Your task to perform on an android device: change alarm snooze length Image 0: 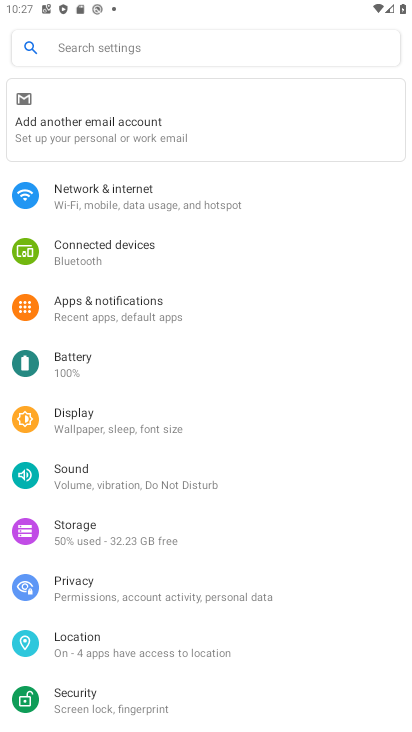
Step 0: press home button
Your task to perform on an android device: change alarm snooze length Image 1: 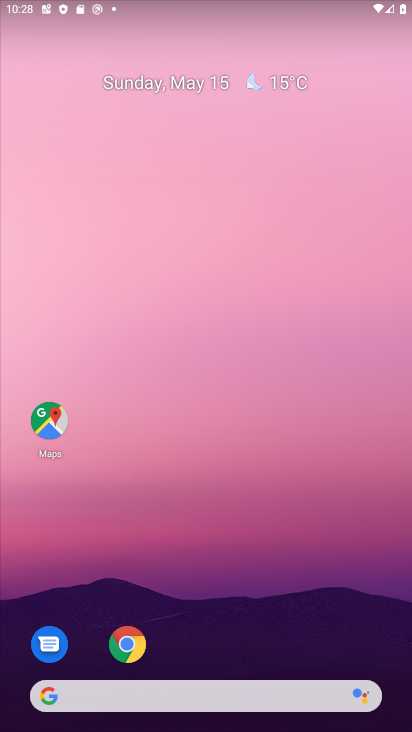
Step 1: drag from (159, 666) to (135, 253)
Your task to perform on an android device: change alarm snooze length Image 2: 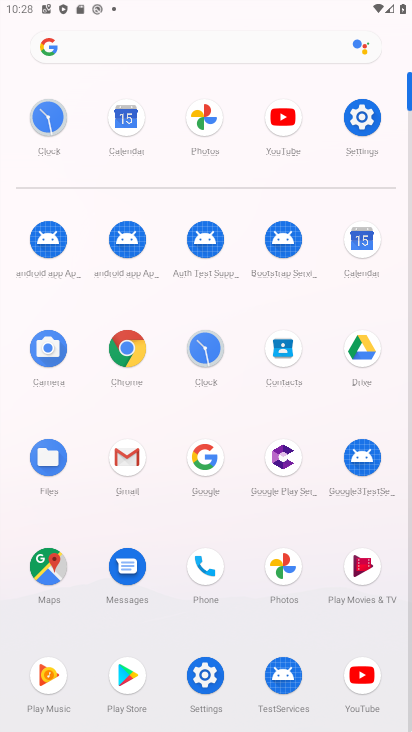
Step 2: click (207, 351)
Your task to perform on an android device: change alarm snooze length Image 3: 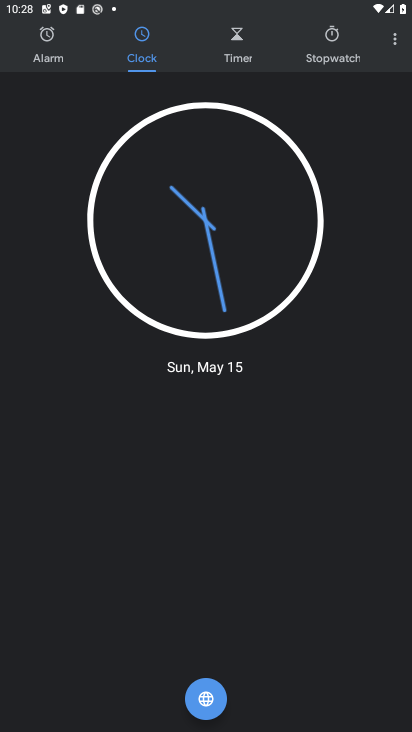
Step 3: click (398, 39)
Your task to perform on an android device: change alarm snooze length Image 4: 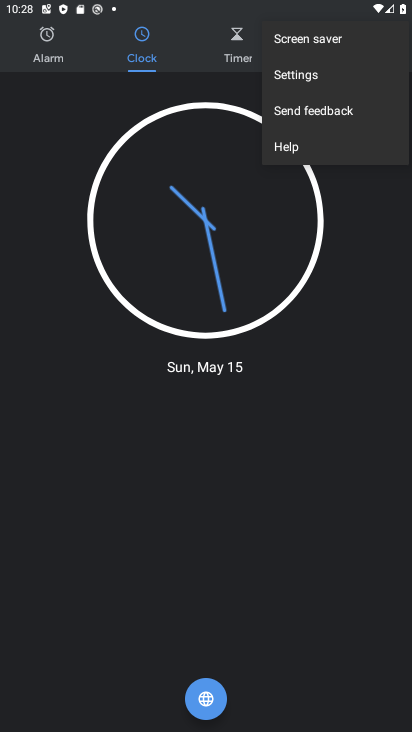
Step 4: click (321, 72)
Your task to perform on an android device: change alarm snooze length Image 5: 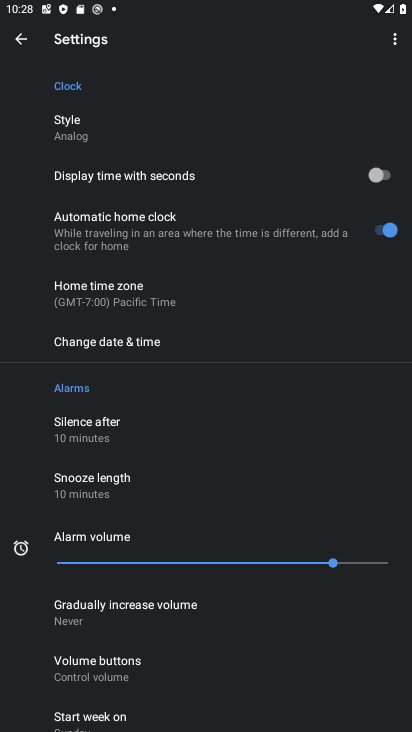
Step 5: click (65, 475)
Your task to perform on an android device: change alarm snooze length Image 6: 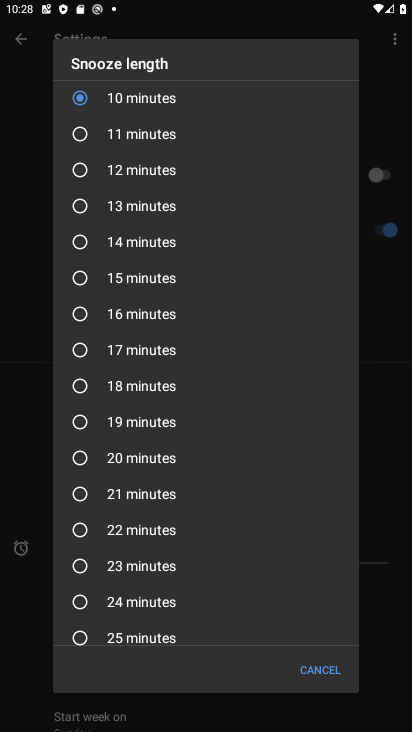
Step 6: click (133, 177)
Your task to perform on an android device: change alarm snooze length Image 7: 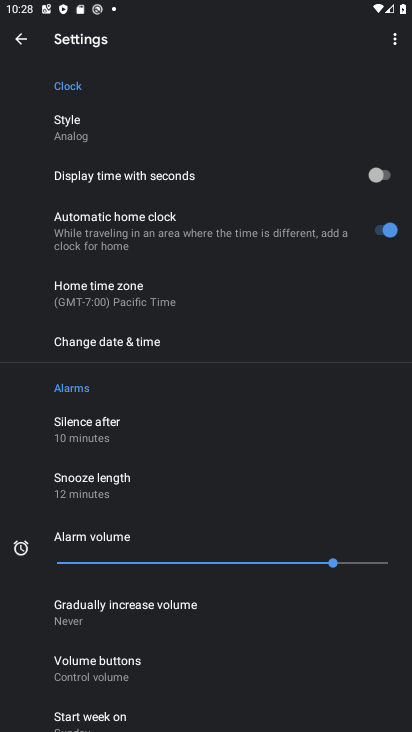
Step 7: task complete